Your task to perform on an android device: clear all cookies in the chrome app Image 0: 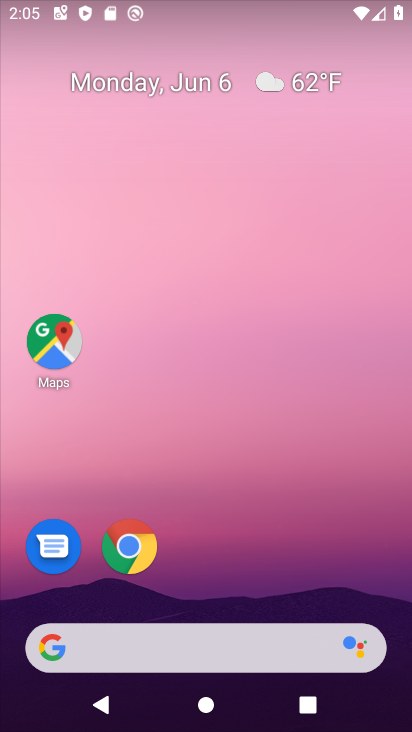
Step 0: click (128, 545)
Your task to perform on an android device: clear all cookies in the chrome app Image 1: 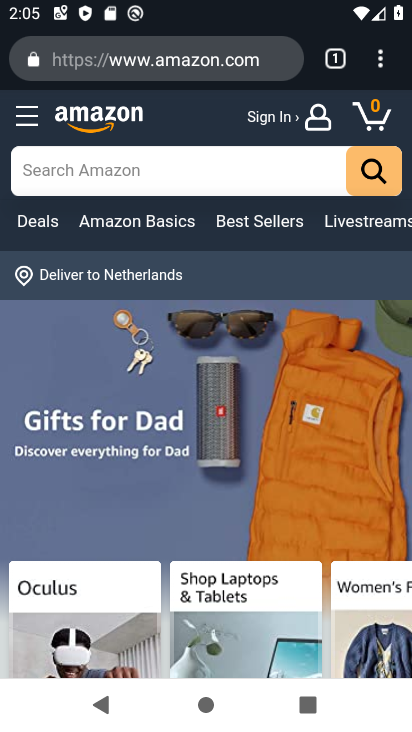
Step 1: drag from (377, 47) to (186, 201)
Your task to perform on an android device: clear all cookies in the chrome app Image 2: 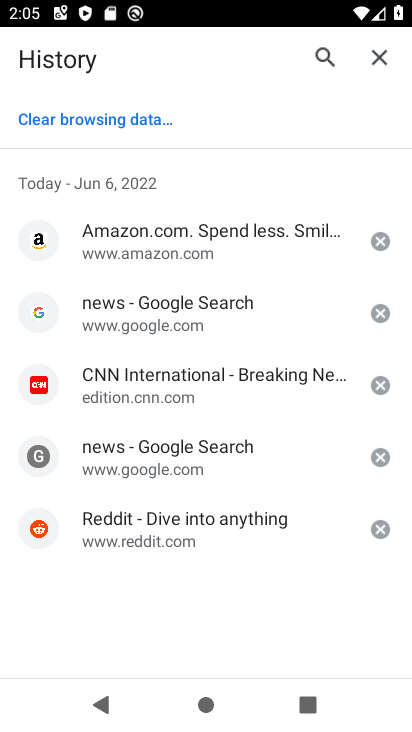
Step 2: click (122, 128)
Your task to perform on an android device: clear all cookies in the chrome app Image 3: 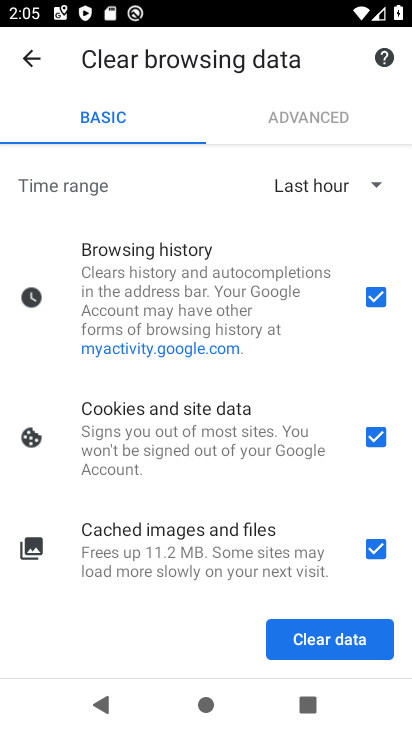
Step 3: click (336, 179)
Your task to perform on an android device: clear all cookies in the chrome app Image 4: 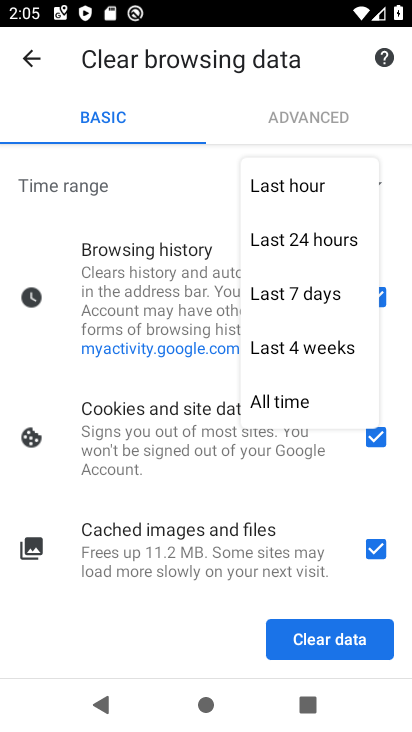
Step 4: click (291, 397)
Your task to perform on an android device: clear all cookies in the chrome app Image 5: 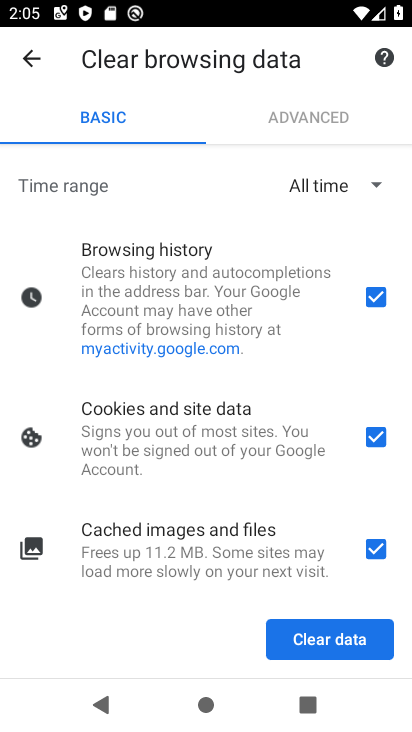
Step 5: click (357, 614)
Your task to perform on an android device: clear all cookies in the chrome app Image 6: 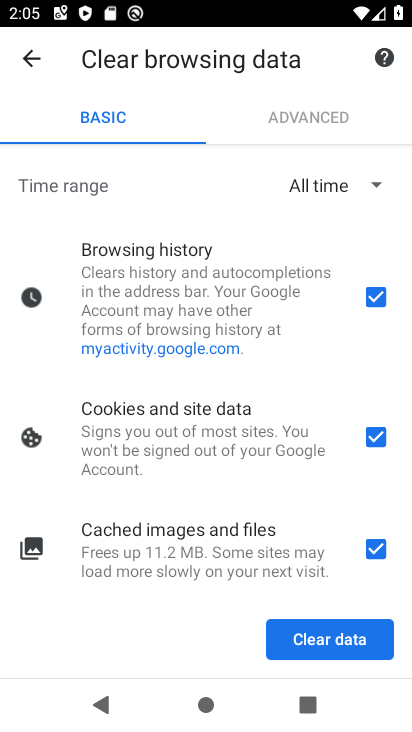
Step 6: click (360, 631)
Your task to perform on an android device: clear all cookies in the chrome app Image 7: 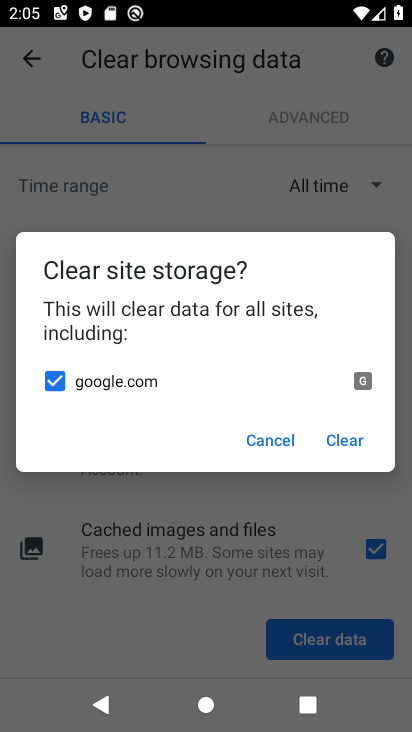
Step 7: click (348, 438)
Your task to perform on an android device: clear all cookies in the chrome app Image 8: 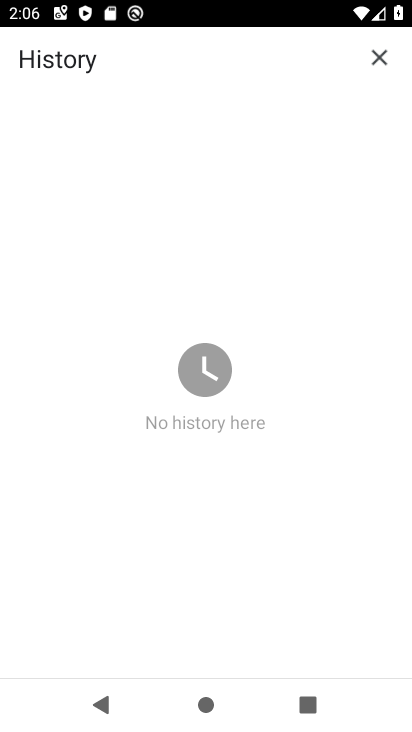
Step 8: task complete